Your task to perform on an android device: create a new album in the google photos Image 0: 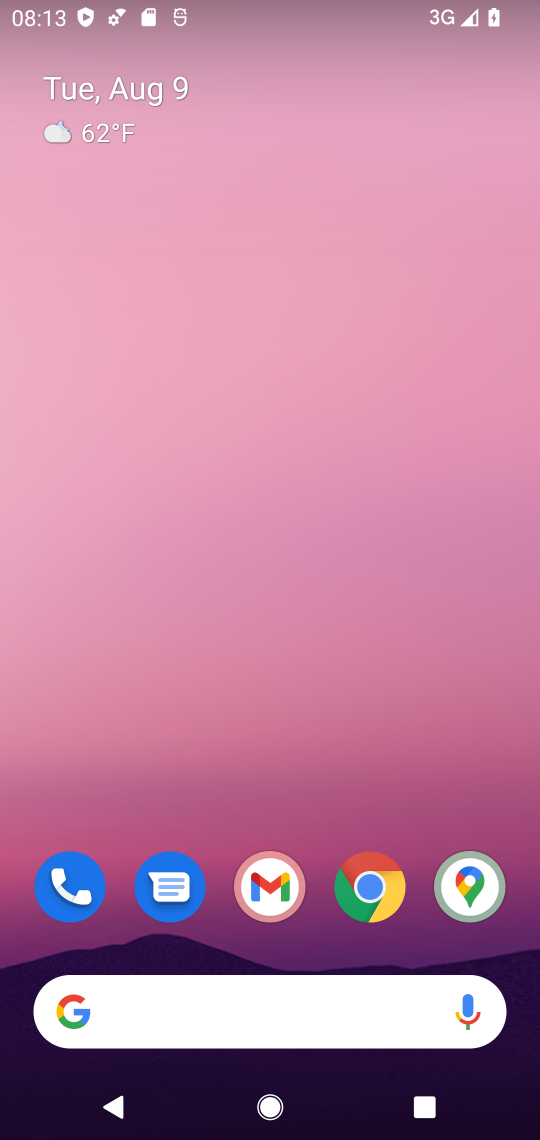
Step 0: drag from (313, 712) to (362, 0)
Your task to perform on an android device: create a new album in the google photos Image 1: 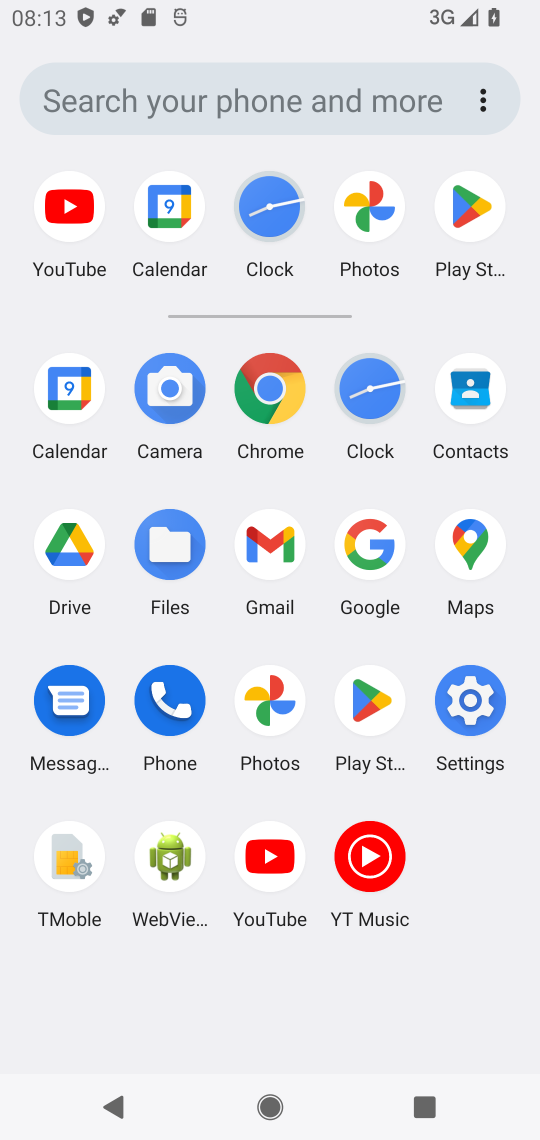
Step 1: click (279, 706)
Your task to perform on an android device: create a new album in the google photos Image 2: 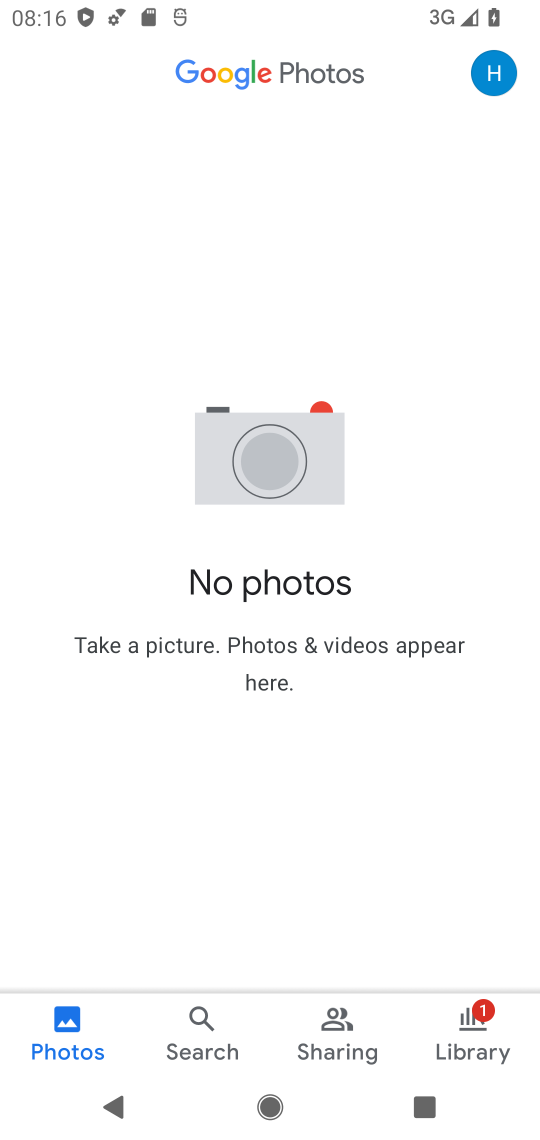
Step 2: task complete